Your task to perform on an android device: turn on translation in the chrome app Image 0: 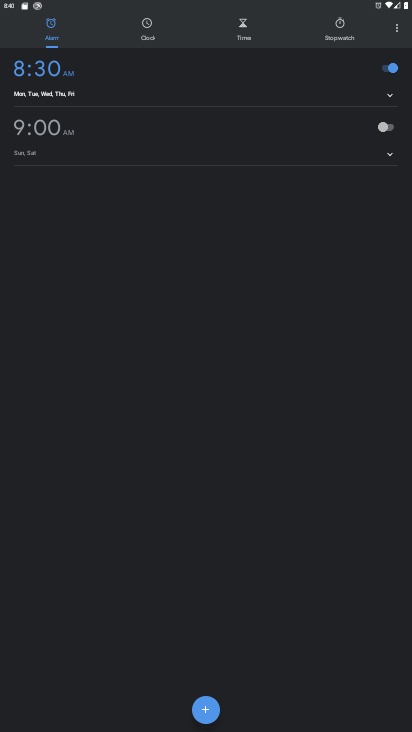
Step 0: press home button
Your task to perform on an android device: turn on translation in the chrome app Image 1: 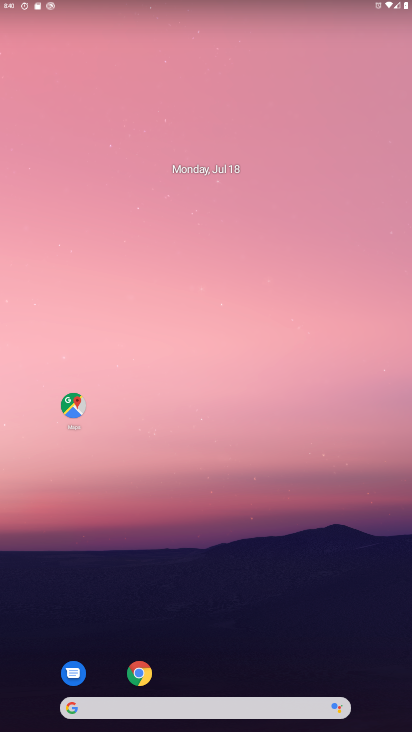
Step 1: click (142, 673)
Your task to perform on an android device: turn on translation in the chrome app Image 2: 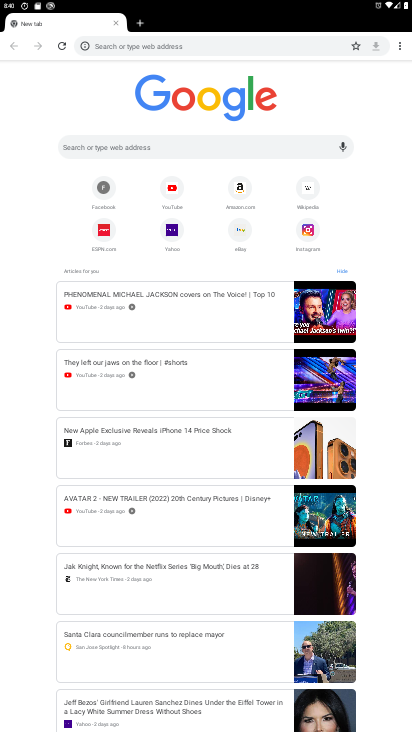
Step 2: click (403, 51)
Your task to perform on an android device: turn on translation in the chrome app Image 3: 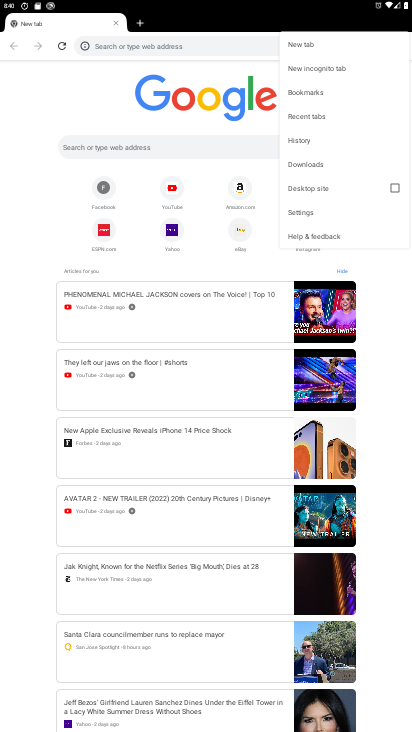
Step 3: click (302, 212)
Your task to perform on an android device: turn on translation in the chrome app Image 4: 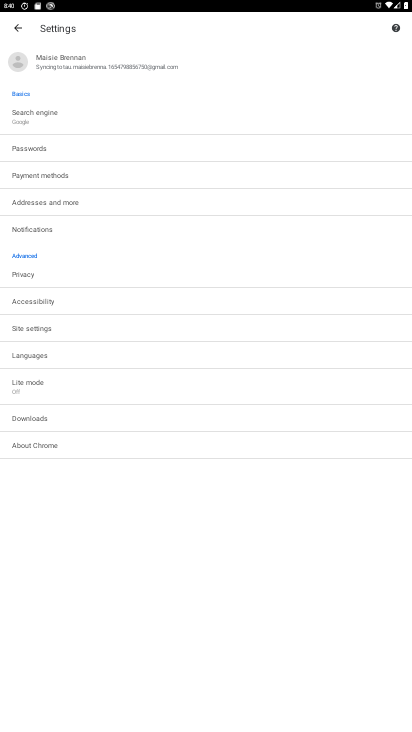
Step 4: click (37, 357)
Your task to perform on an android device: turn on translation in the chrome app Image 5: 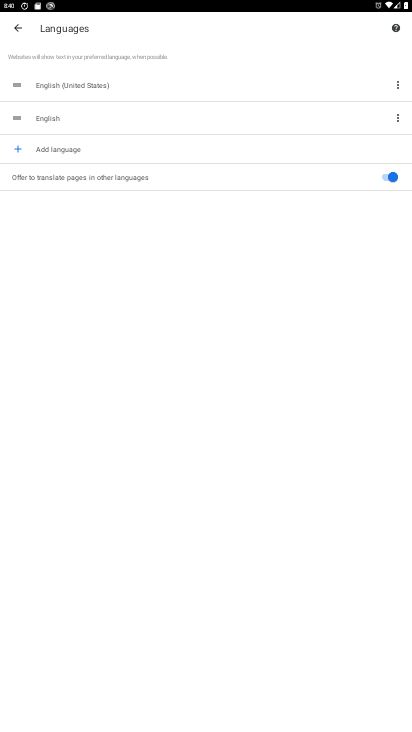
Step 5: task complete